Your task to perform on an android device: Open sound settings Image 0: 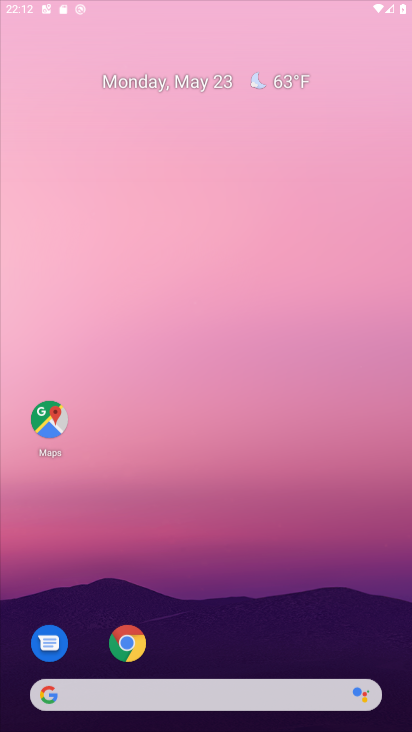
Step 0: press home button
Your task to perform on an android device: Open sound settings Image 1: 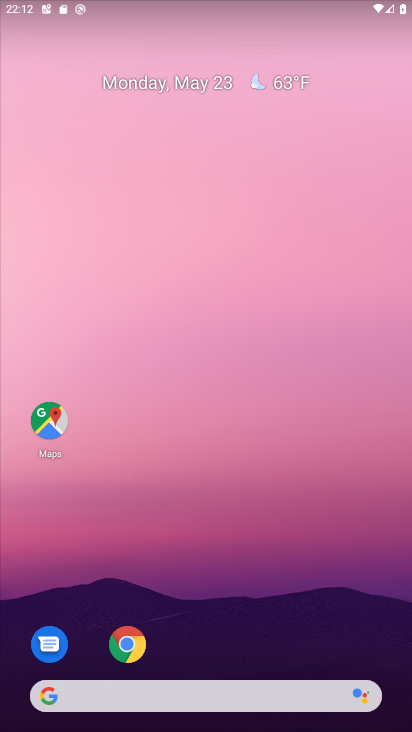
Step 1: click (284, 80)
Your task to perform on an android device: Open sound settings Image 2: 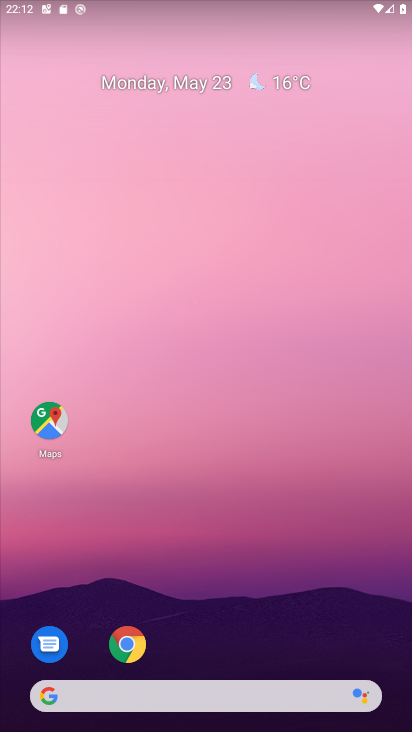
Step 2: drag from (217, 656) to (195, 83)
Your task to perform on an android device: Open sound settings Image 3: 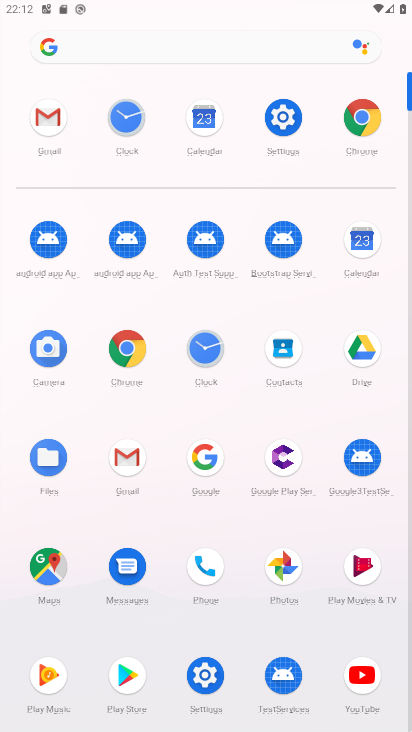
Step 3: click (280, 110)
Your task to perform on an android device: Open sound settings Image 4: 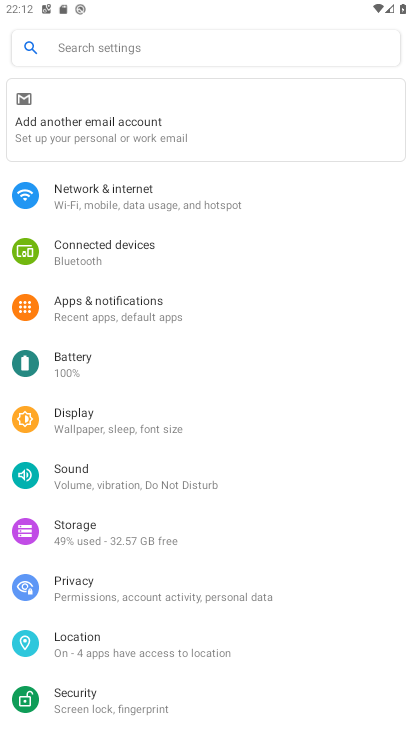
Step 4: click (110, 469)
Your task to perform on an android device: Open sound settings Image 5: 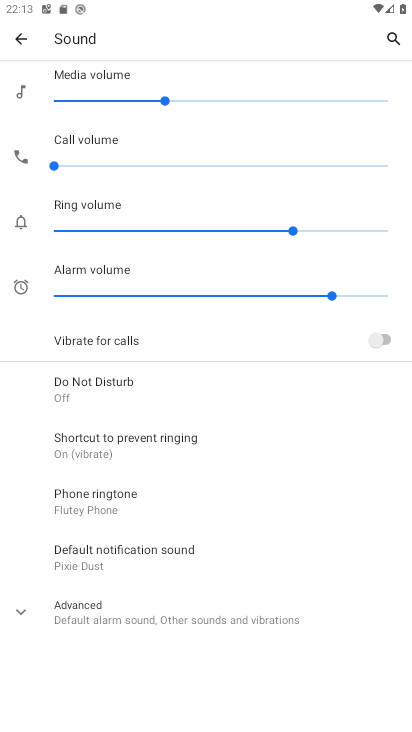
Step 5: click (20, 608)
Your task to perform on an android device: Open sound settings Image 6: 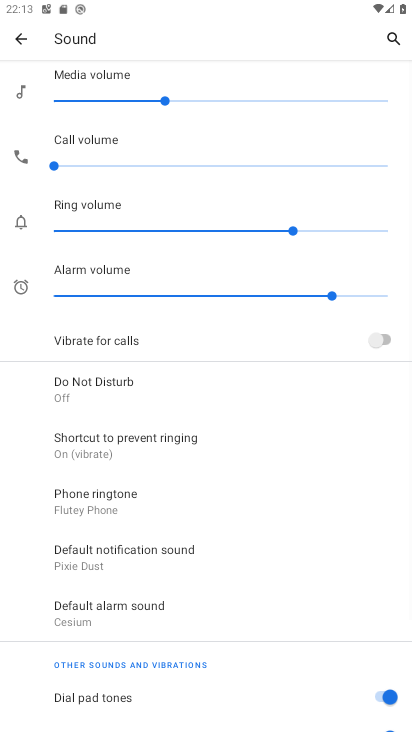
Step 6: task complete